Your task to perform on an android device: Set the phone to "Do not disturb". Image 0: 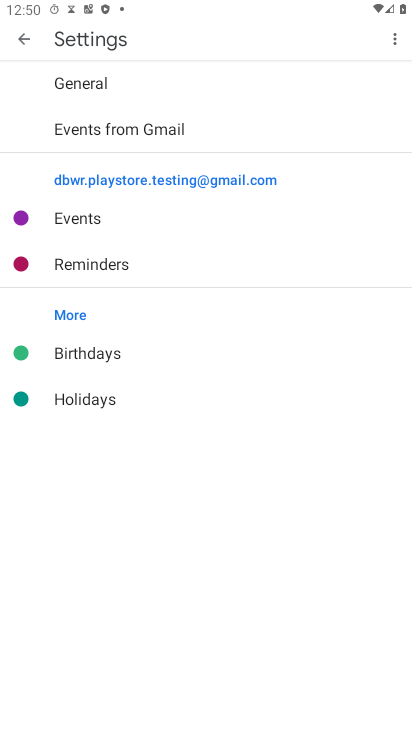
Step 0: press home button
Your task to perform on an android device: Set the phone to "Do not disturb". Image 1: 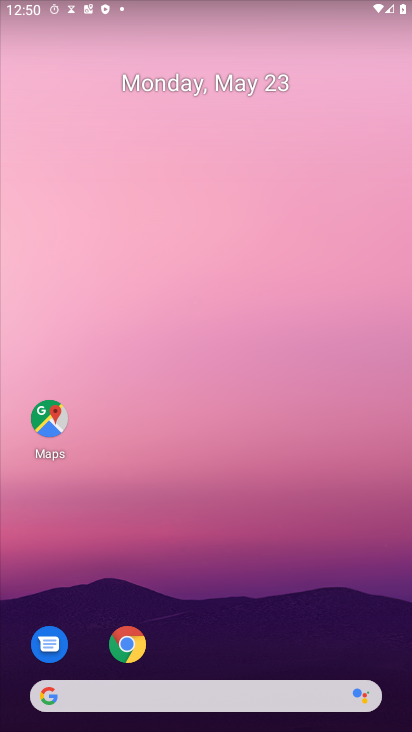
Step 1: drag from (272, 662) to (254, 45)
Your task to perform on an android device: Set the phone to "Do not disturb". Image 2: 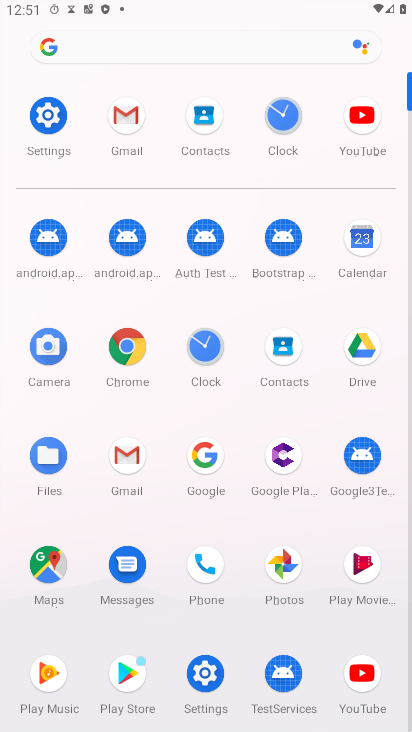
Step 2: click (48, 116)
Your task to perform on an android device: Set the phone to "Do not disturb". Image 3: 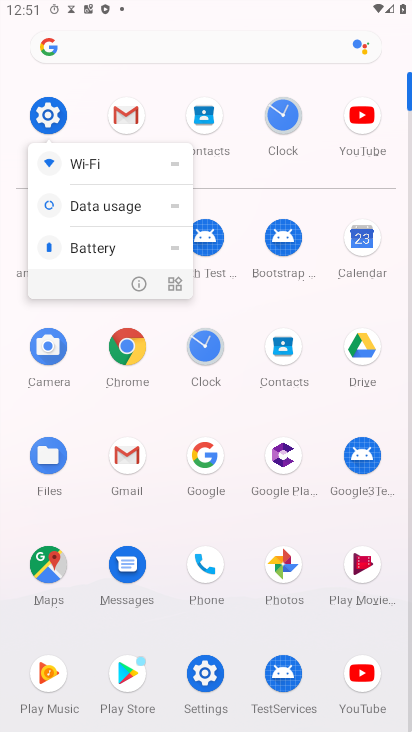
Step 3: click (48, 116)
Your task to perform on an android device: Set the phone to "Do not disturb". Image 4: 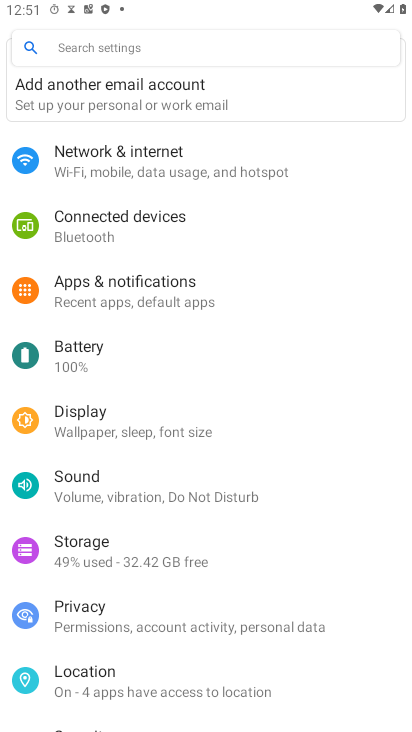
Step 4: click (116, 480)
Your task to perform on an android device: Set the phone to "Do not disturb". Image 5: 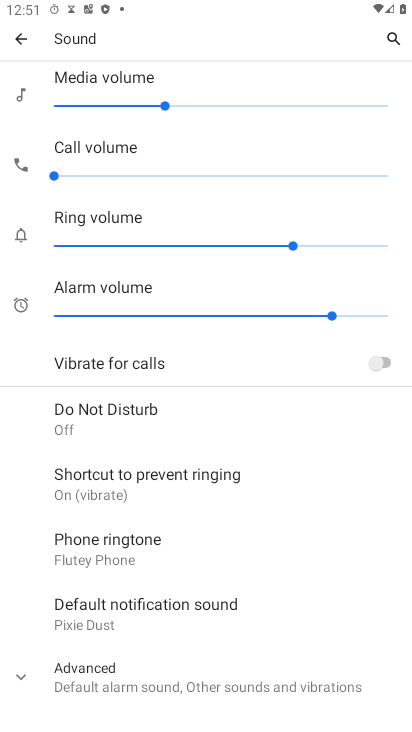
Step 5: drag from (305, 607) to (292, 291)
Your task to perform on an android device: Set the phone to "Do not disturb". Image 6: 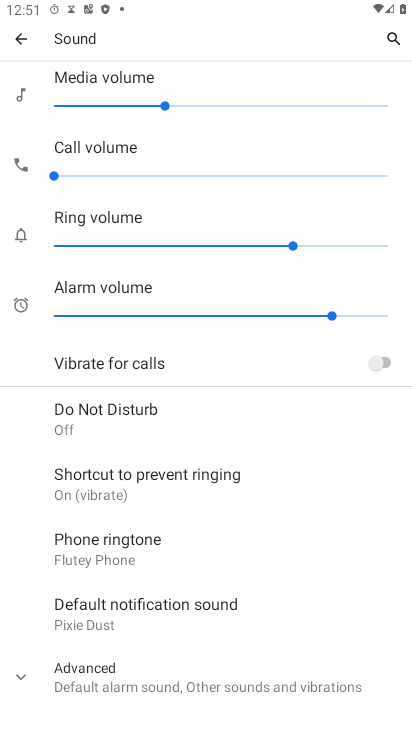
Step 6: click (100, 414)
Your task to perform on an android device: Set the phone to "Do not disturb". Image 7: 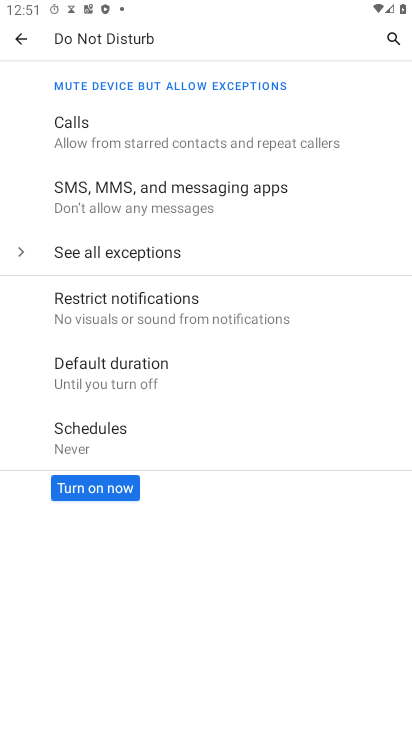
Step 7: click (111, 484)
Your task to perform on an android device: Set the phone to "Do not disturb". Image 8: 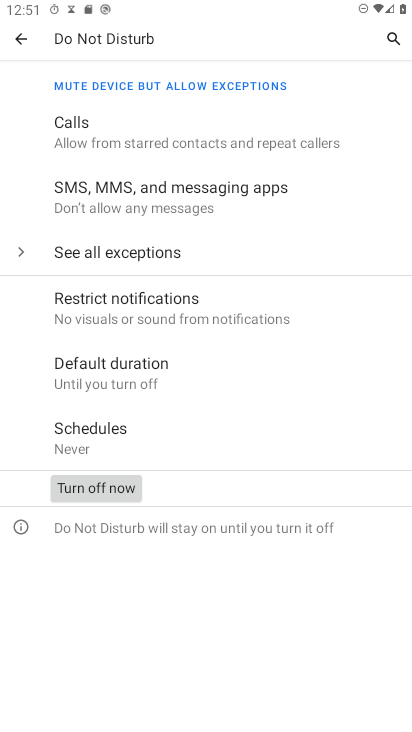
Step 8: task complete